Your task to perform on an android device: Open the calendar app, open the side menu, and click the "Day" option Image 0: 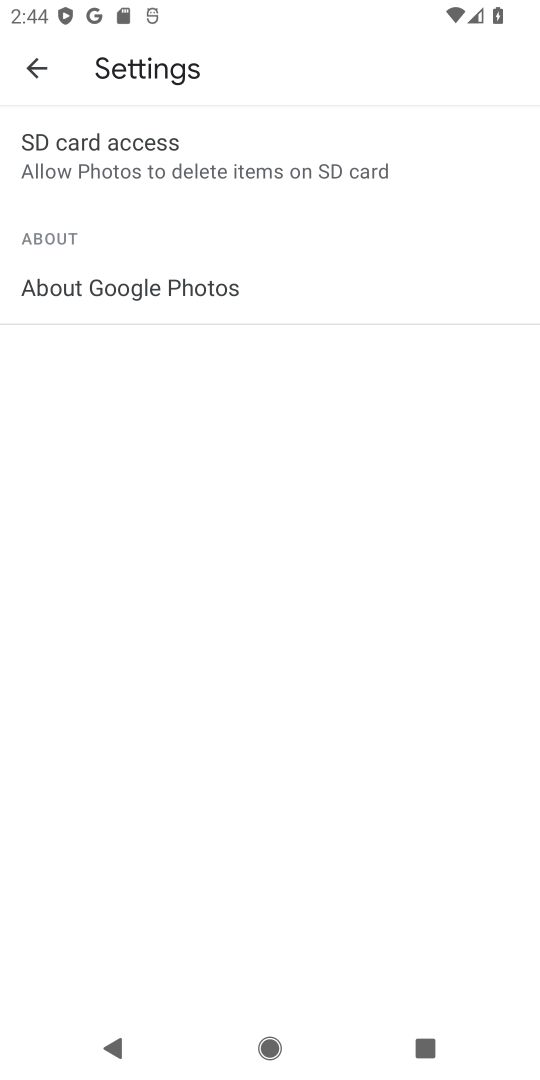
Step 0: press back button
Your task to perform on an android device: Open the calendar app, open the side menu, and click the "Day" option Image 1: 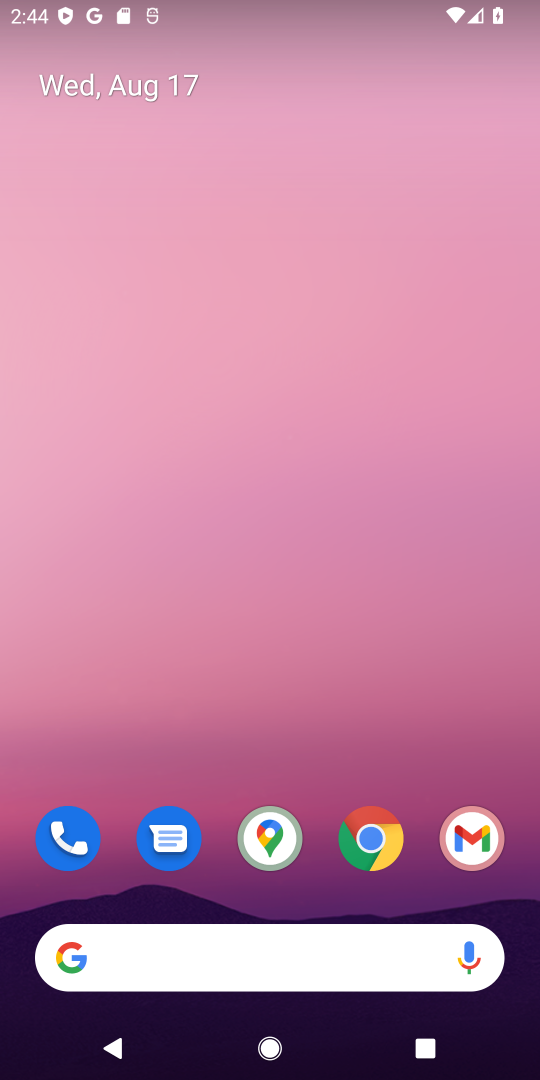
Step 1: drag from (261, 910) to (454, 158)
Your task to perform on an android device: Open the calendar app, open the side menu, and click the "Day" option Image 2: 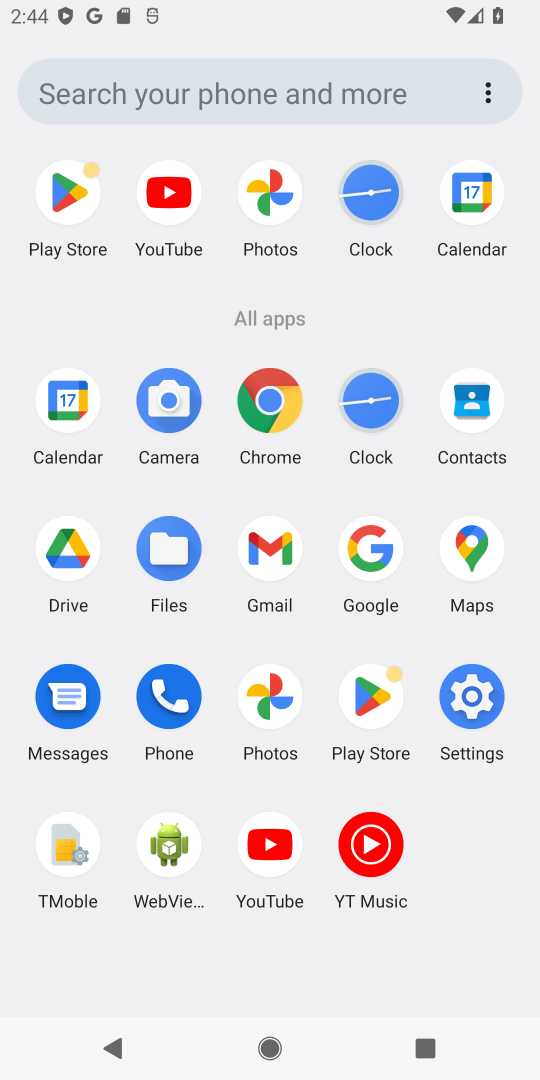
Step 2: click (478, 195)
Your task to perform on an android device: Open the calendar app, open the side menu, and click the "Day" option Image 3: 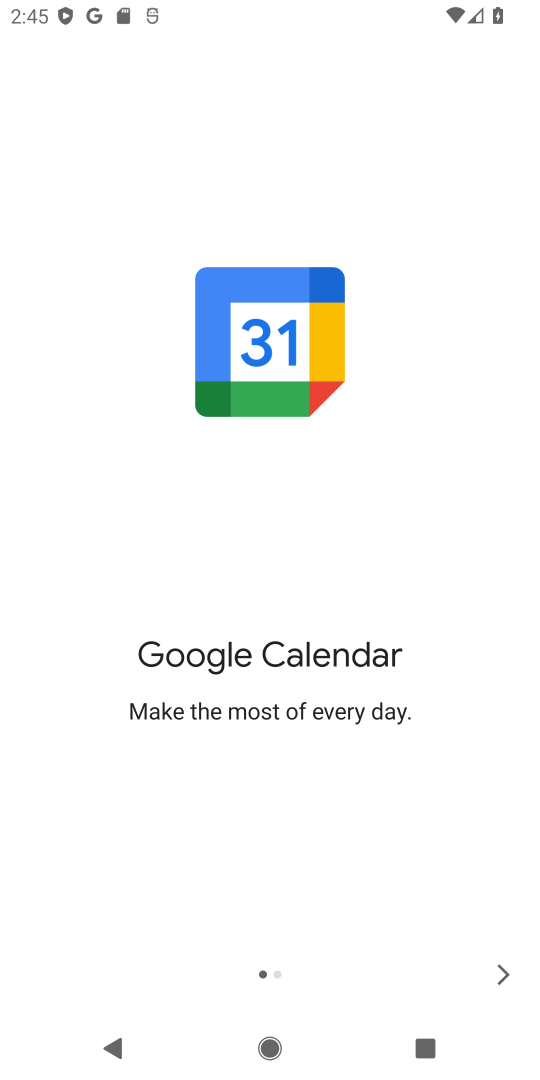
Step 3: click (495, 974)
Your task to perform on an android device: Open the calendar app, open the side menu, and click the "Day" option Image 4: 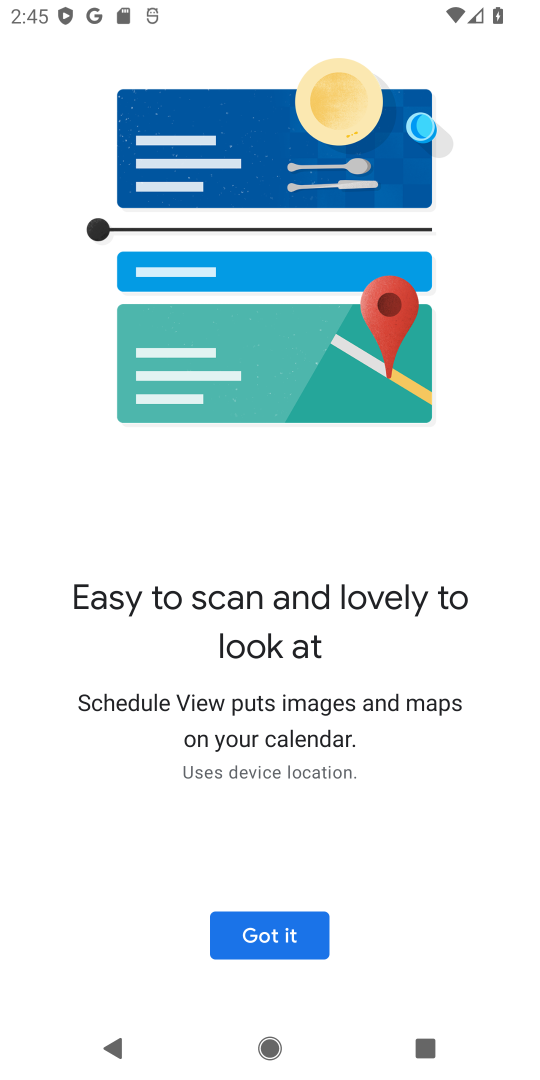
Step 4: click (258, 950)
Your task to perform on an android device: Open the calendar app, open the side menu, and click the "Day" option Image 5: 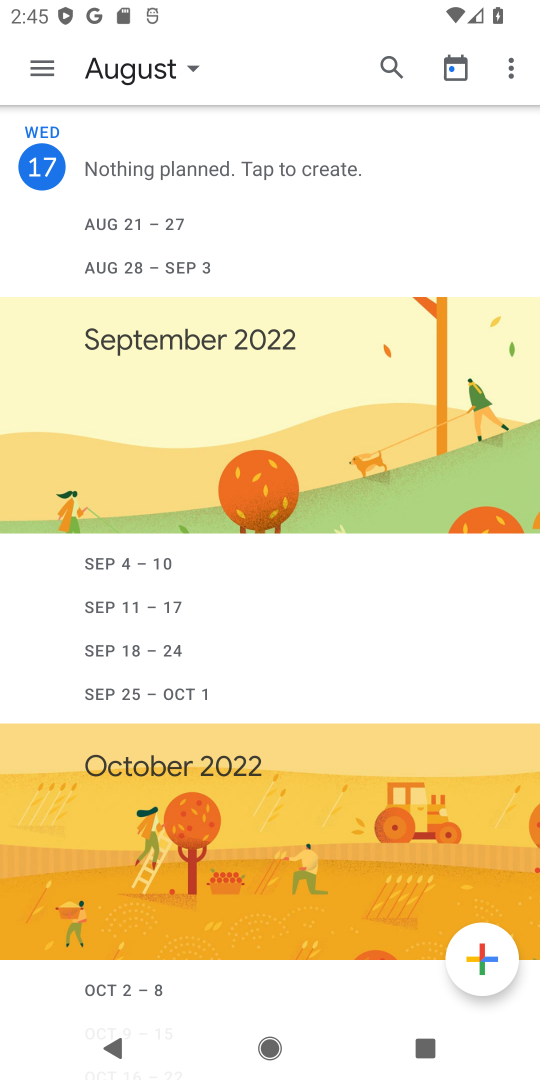
Step 5: click (38, 54)
Your task to perform on an android device: Open the calendar app, open the side menu, and click the "Day" option Image 6: 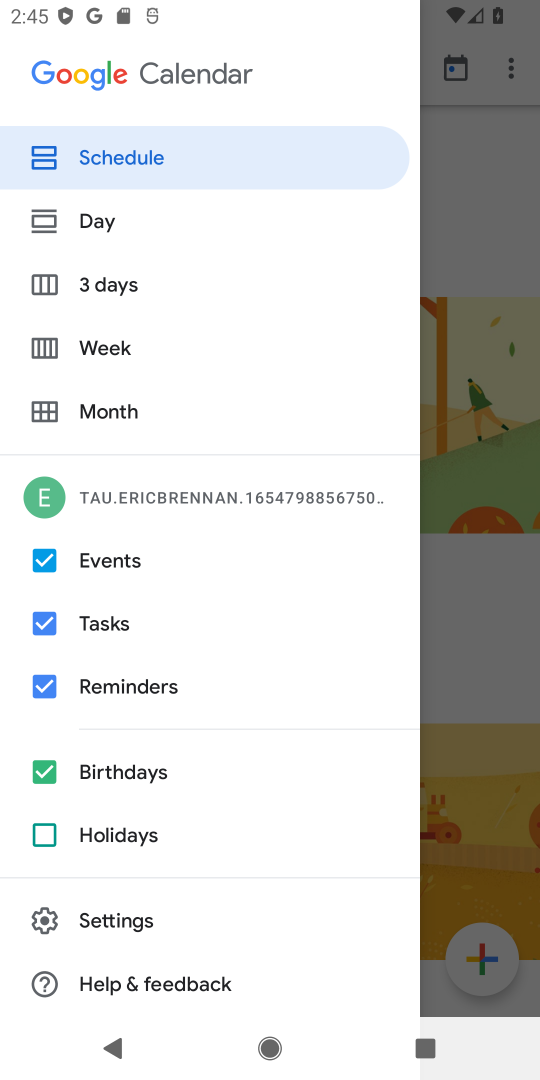
Step 6: click (108, 212)
Your task to perform on an android device: Open the calendar app, open the side menu, and click the "Day" option Image 7: 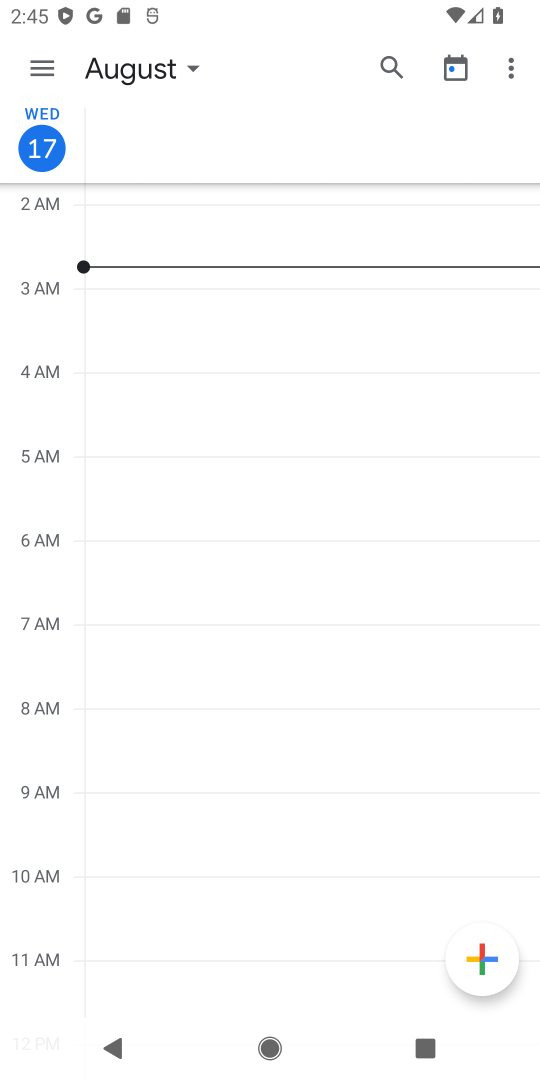
Step 7: task complete